Your task to perform on an android device: Open wifi settings Image 0: 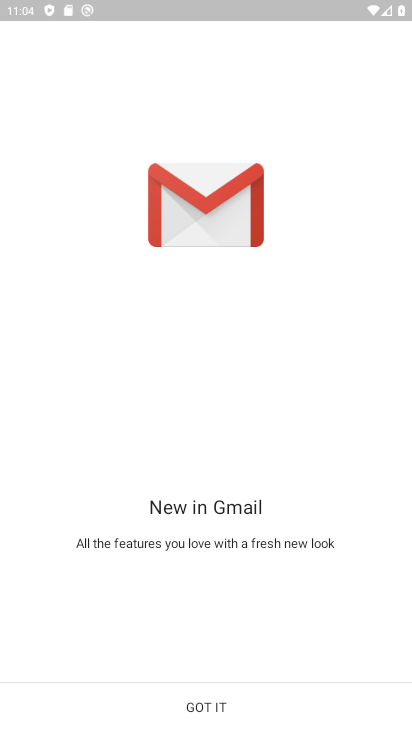
Step 0: press home button
Your task to perform on an android device: Open wifi settings Image 1: 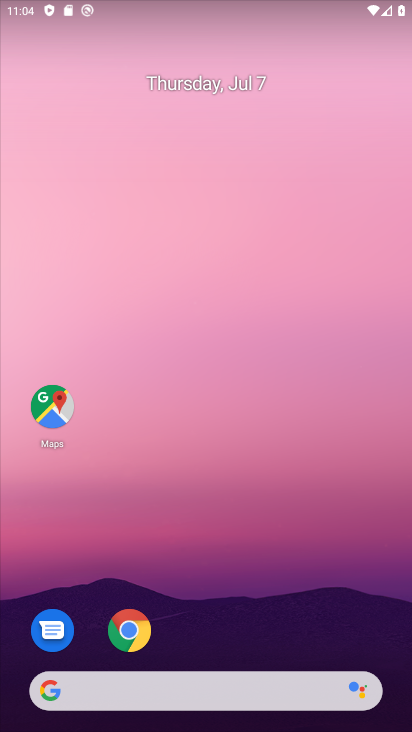
Step 1: drag from (391, 672) to (9, 150)
Your task to perform on an android device: Open wifi settings Image 2: 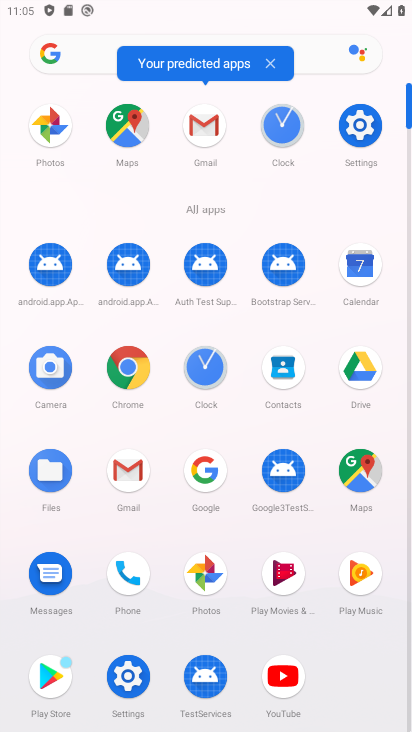
Step 2: click (356, 116)
Your task to perform on an android device: Open wifi settings Image 3: 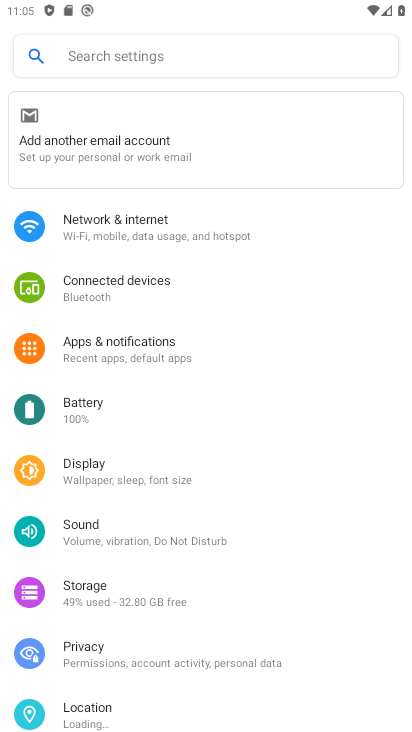
Step 3: click (135, 227)
Your task to perform on an android device: Open wifi settings Image 4: 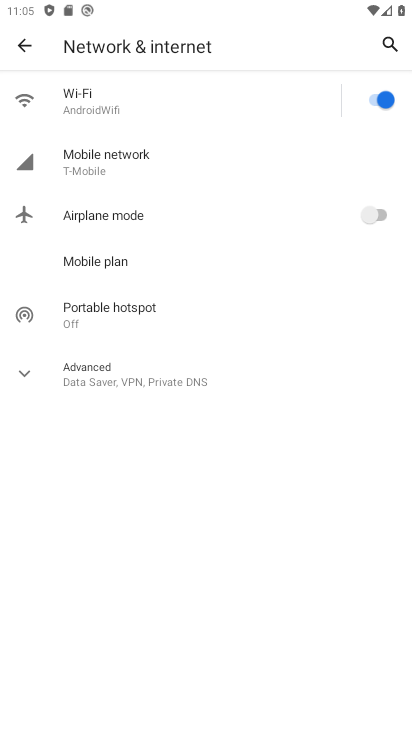
Step 4: click (196, 94)
Your task to perform on an android device: Open wifi settings Image 5: 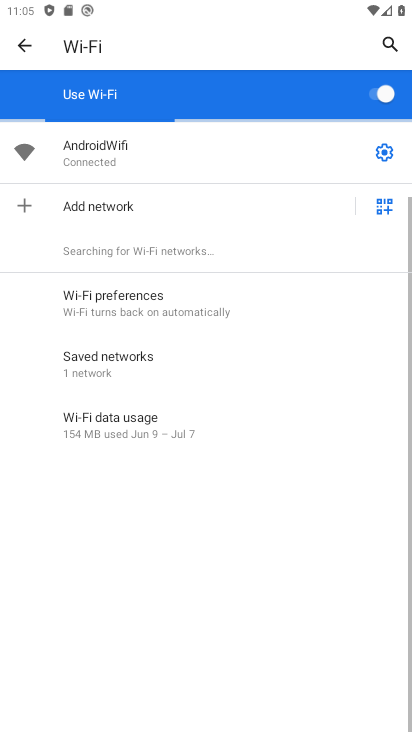
Step 5: task complete